Your task to perform on an android device: Open wifi settings Image 0: 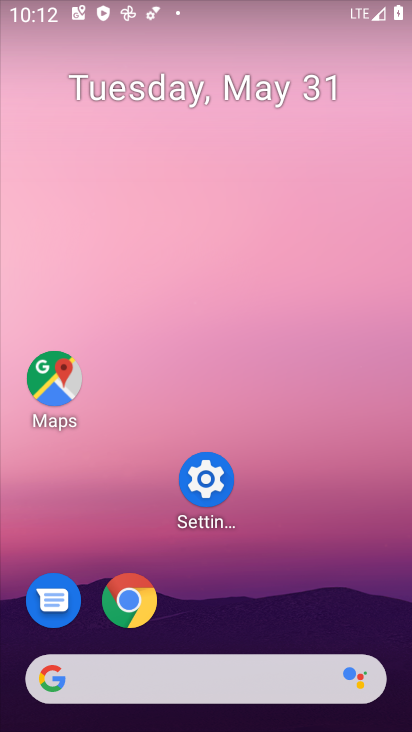
Step 0: click (214, 484)
Your task to perform on an android device: Open wifi settings Image 1: 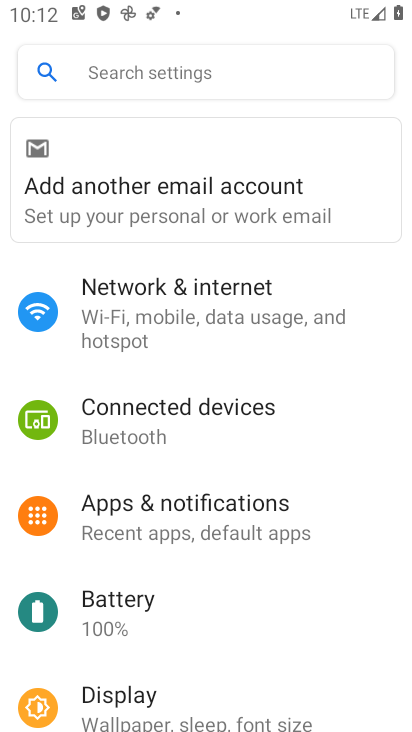
Step 1: click (193, 304)
Your task to perform on an android device: Open wifi settings Image 2: 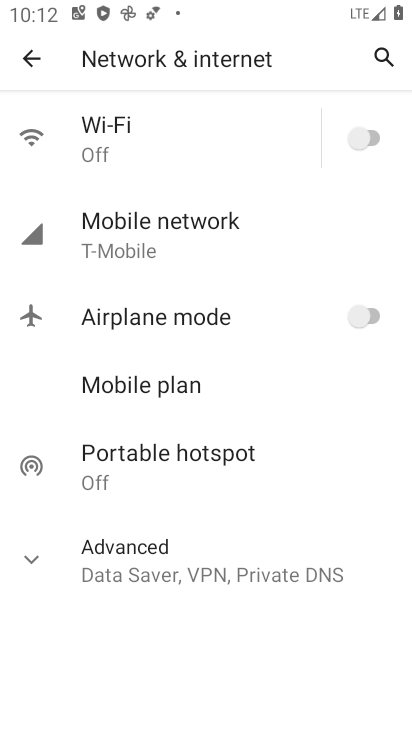
Step 2: click (164, 137)
Your task to perform on an android device: Open wifi settings Image 3: 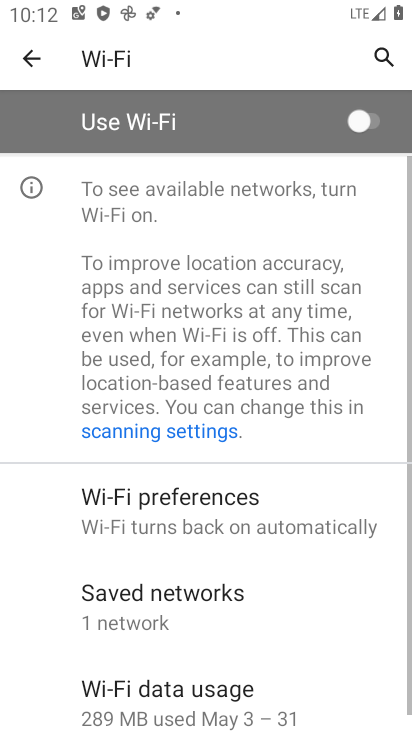
Step 3: task complete